Your task to perform on an android device: What's on my calendar today? Image 0: 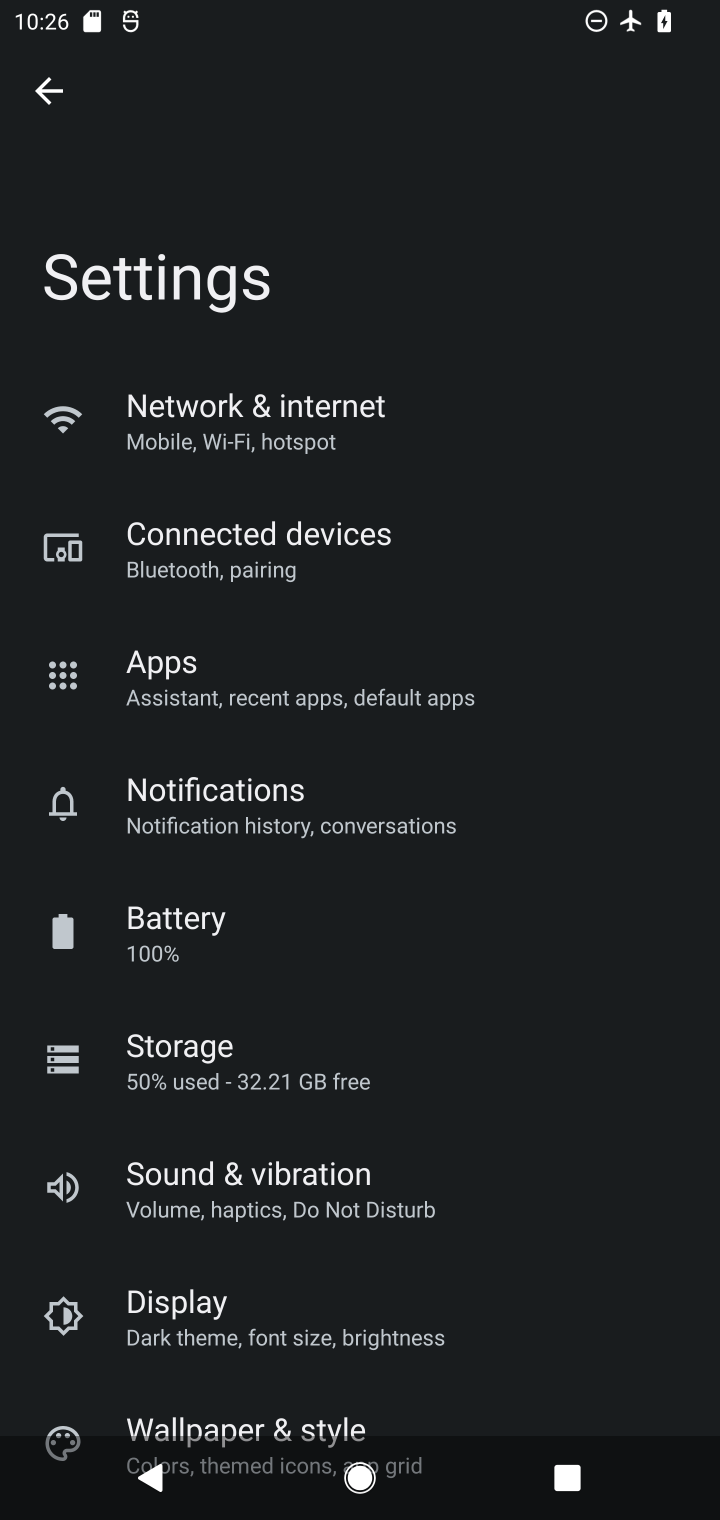
Step 0: press home button
Your task to perform on an android device: What's on my calendar today? Image 1: 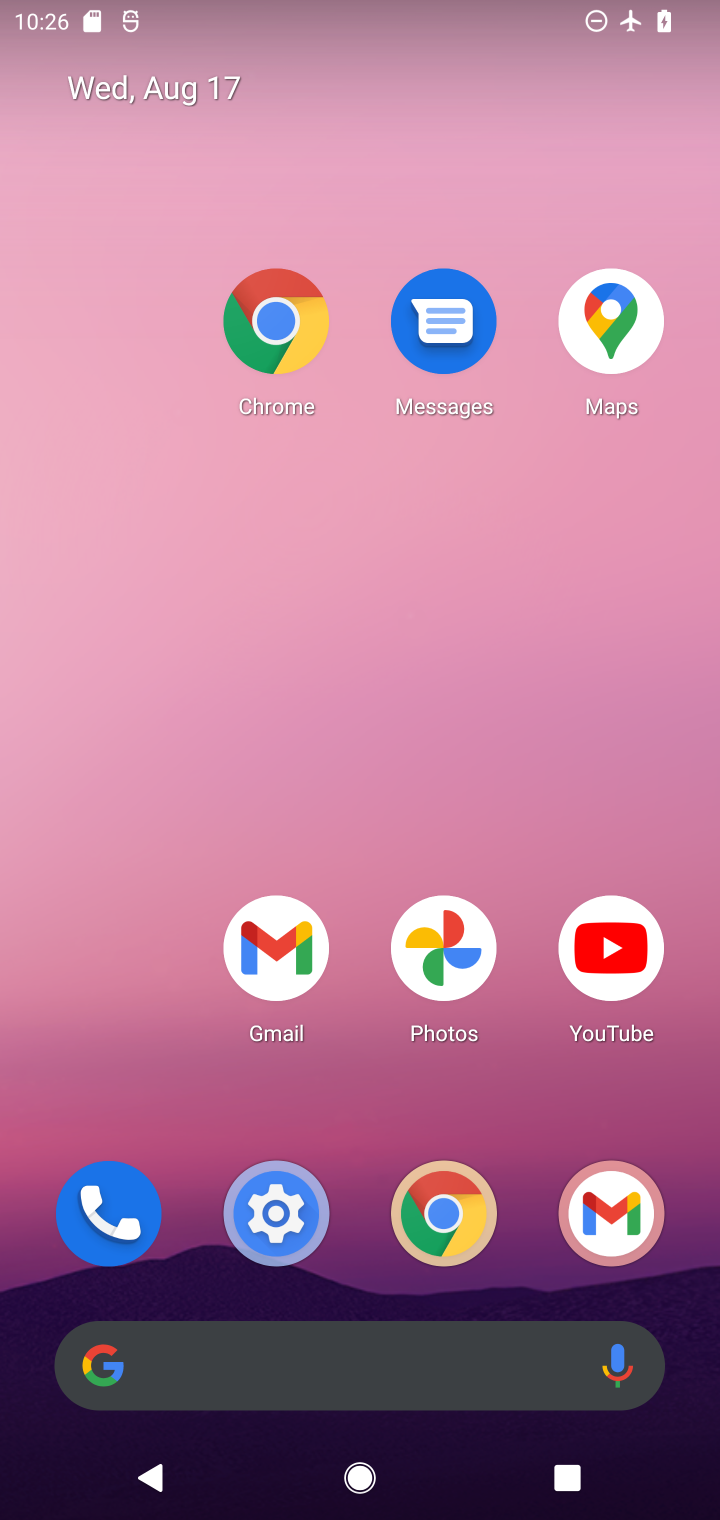
Step 1: drag from (392, 1292) to (369, 293)
Your task to perform on an android device: What's on my calendar today? Image 2: 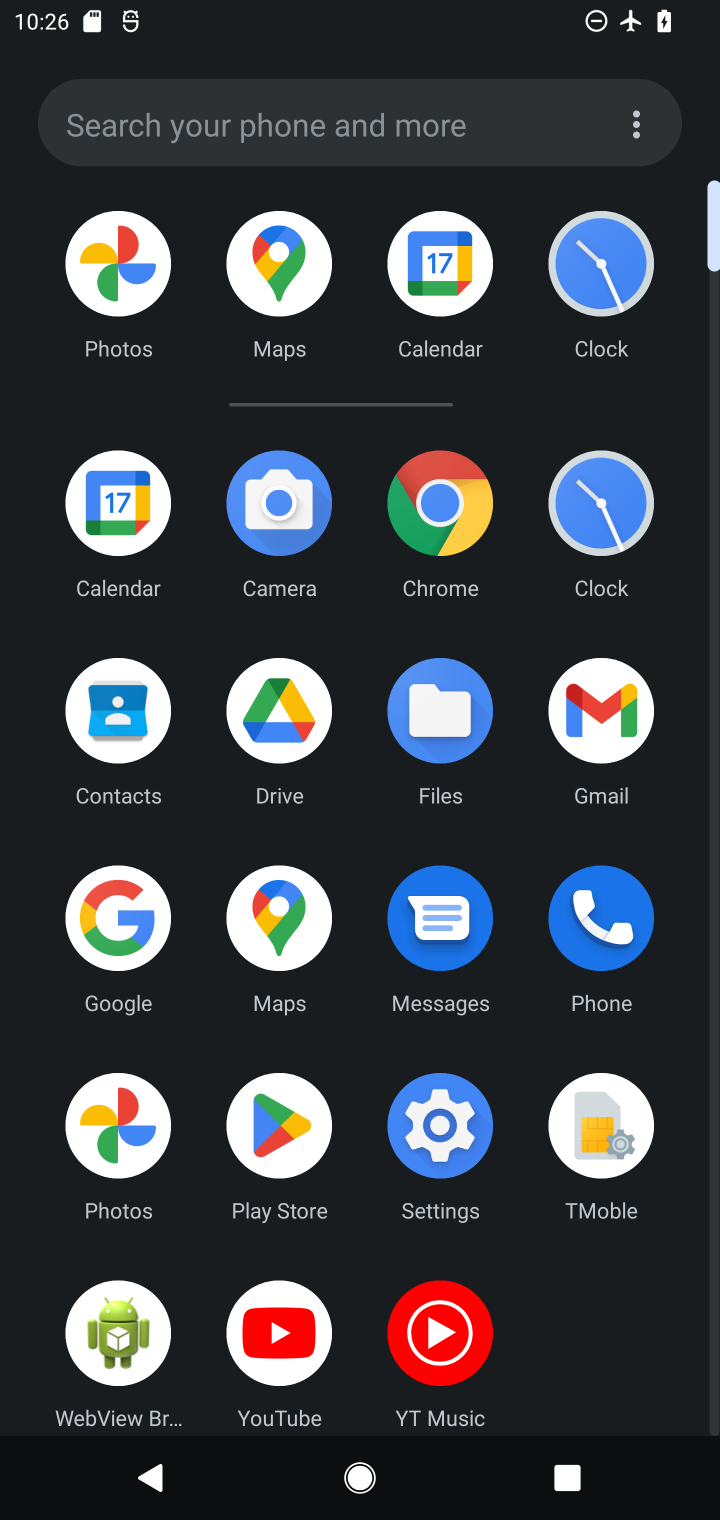
Step 2: click (456, 341)
Your task to perform on an android device: What's on my calendar today? Image 3: 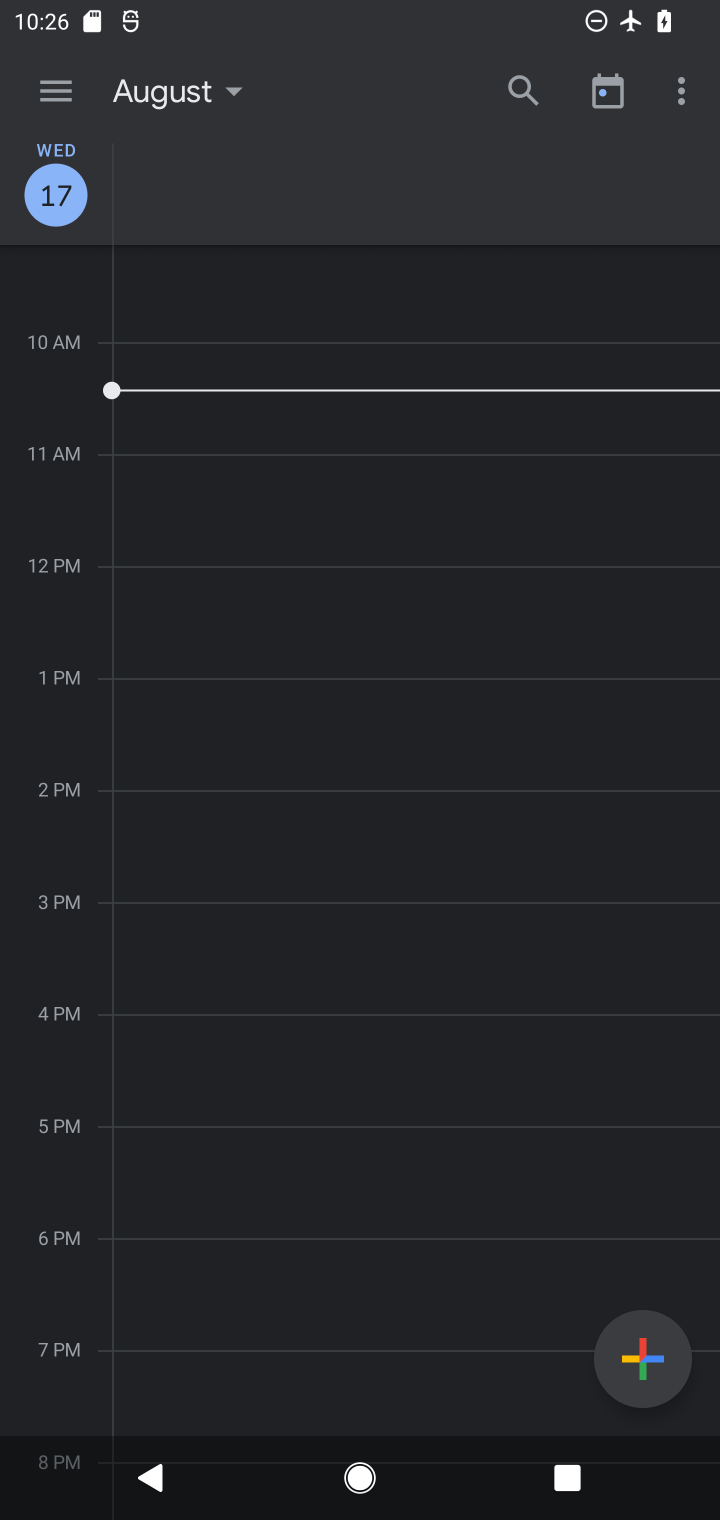
Step 3: task complete